Your task to perform on an android device: Set the phone to "Do not disturb". Image 0: 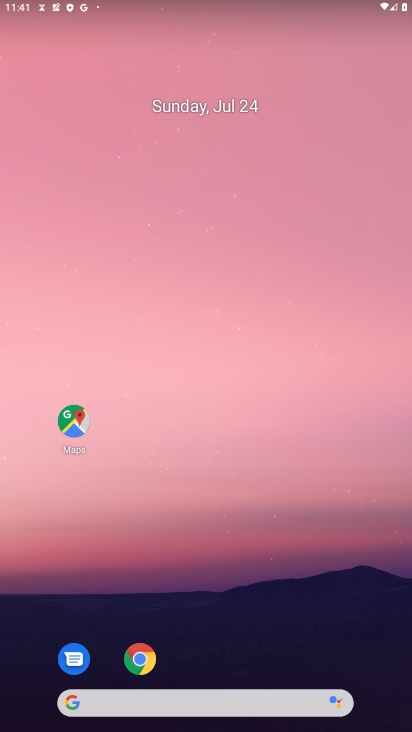
Step 0: drag from (232, 638) to (225, 259)
Your task to perform on an android device: Set the phone to "Do not disturb". Image 1: 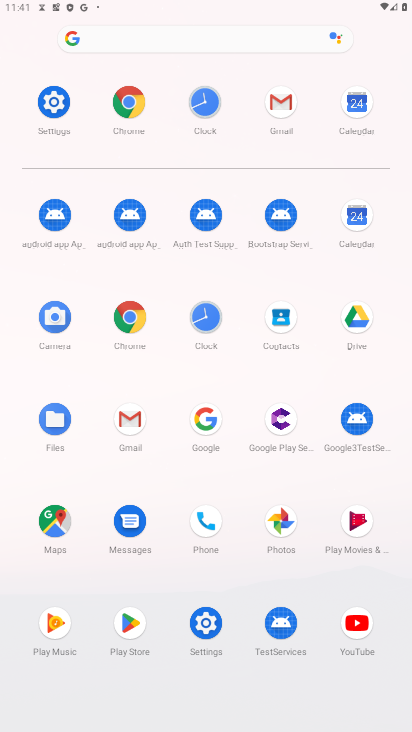
Step 1: drag from (189, 6) to (160, 483)
Your task to perform on an android device: Set the phone to "Do not disturb". Image 2: 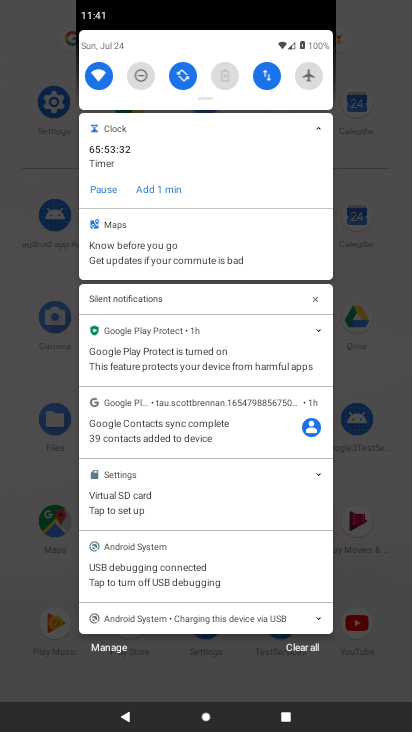
Step 2: click (129, 90)
Your task to perform on an android device: Set the phone to "Do not disturb". Image 3: 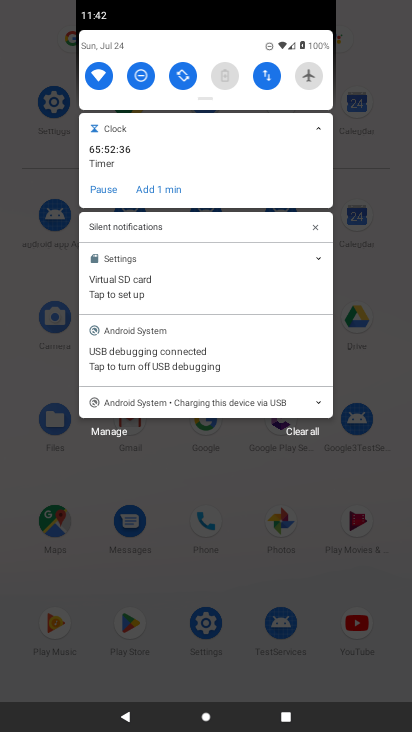
Step 3: task complete